Your task to perform on an android device: check battery use Image 0: 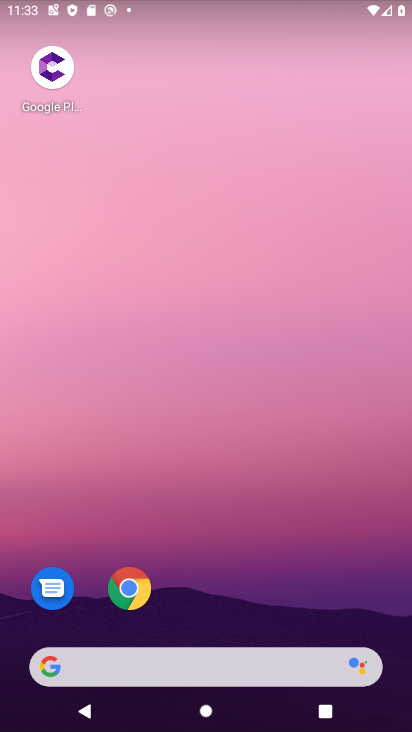
Step 0: drag from (222, 583) to (274, 128)
Your task to perform on an android device: check battery use Image 1: 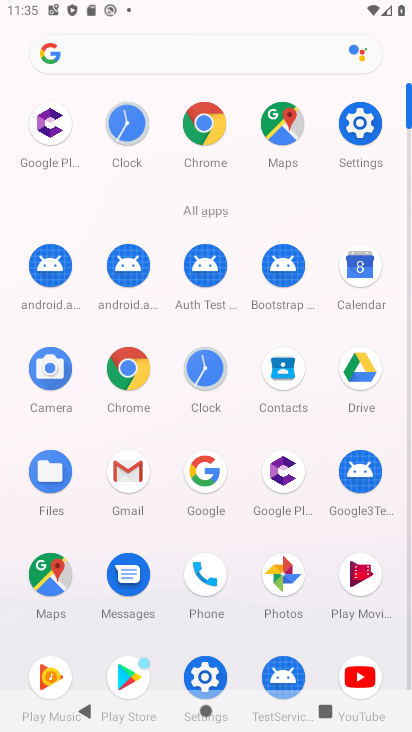
Step 1: click (363, 131)
Your task to perform on an android device: check battery use Image 2: 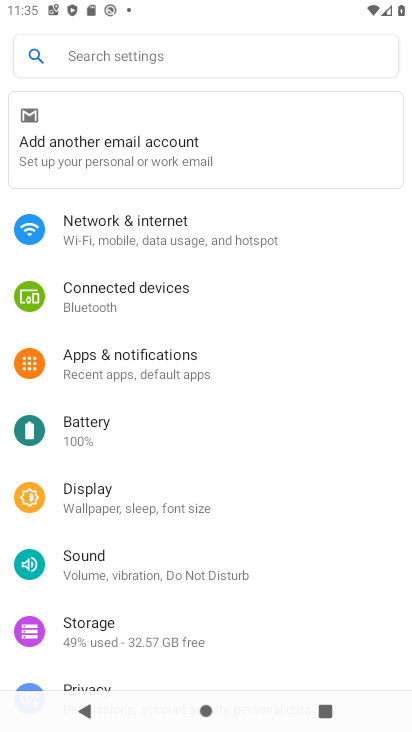
Step 2: click (76, 431)
Your task to perform on an android device: check battery use Image 3: 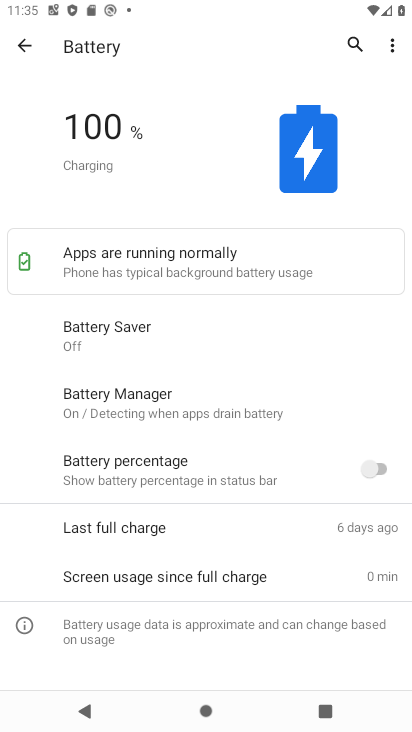
Step 3: click (393, 42)
Your task to perform on an android device: check battery use Image 4: 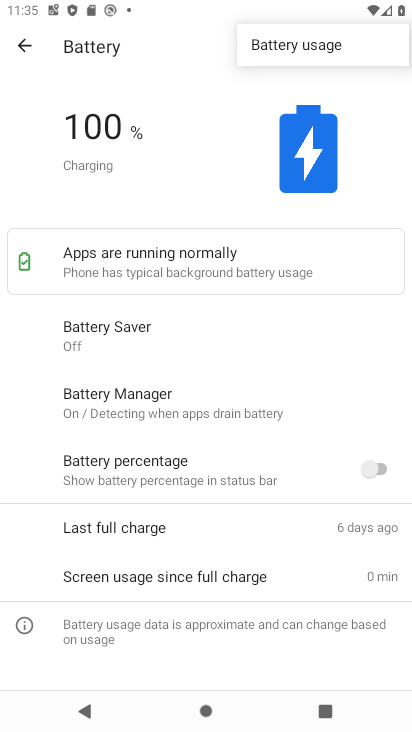
Step 4: click (278, 50)
Your task to perform on an android device: check battery use Image 5: 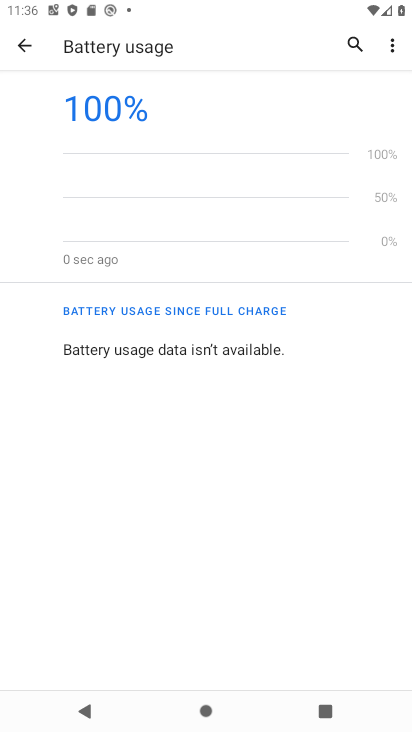
Step 5: task complete